Your task to perform on an android device: Show me productivity apps on the Play Store Image 0: 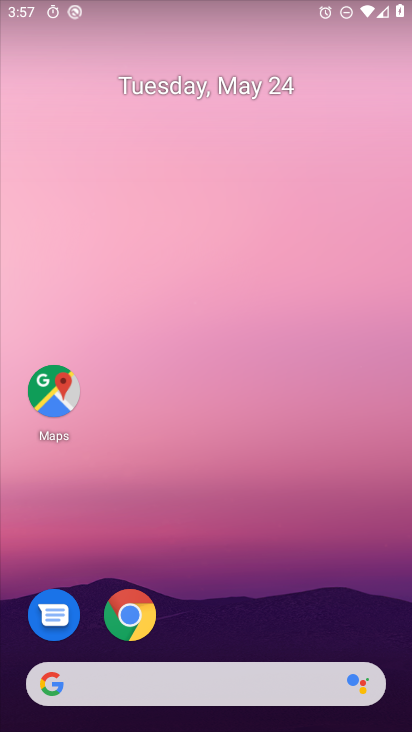
Step 0: drag from (189, 646) to (247, 105)
Your task to perform on an android device: Show me productivity apps on the Play Store Image 1: 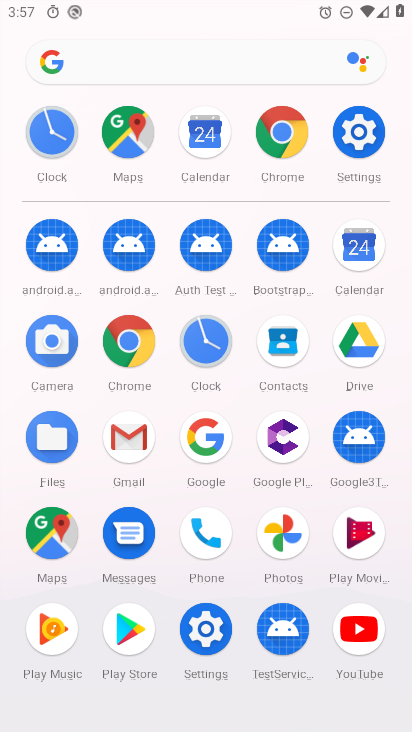
Step 1: click (133, 628)
Your task to perform on an android device: Show me productivity apps on the Play Store Image 2: 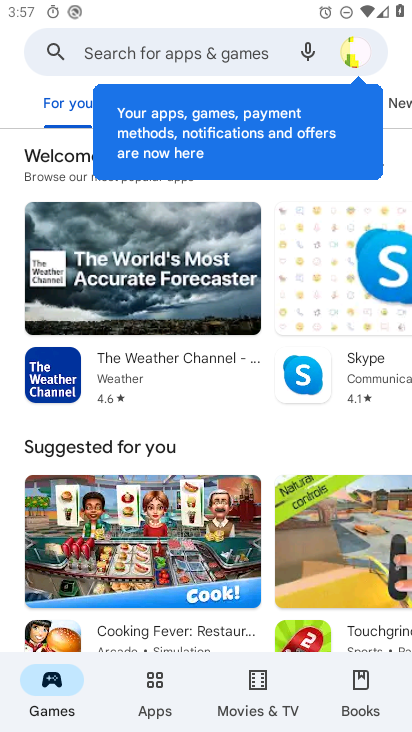
Step 2: click (157, 682)
Your task to perform on an android device: Show me productivity apps on the Play Store Image 3: 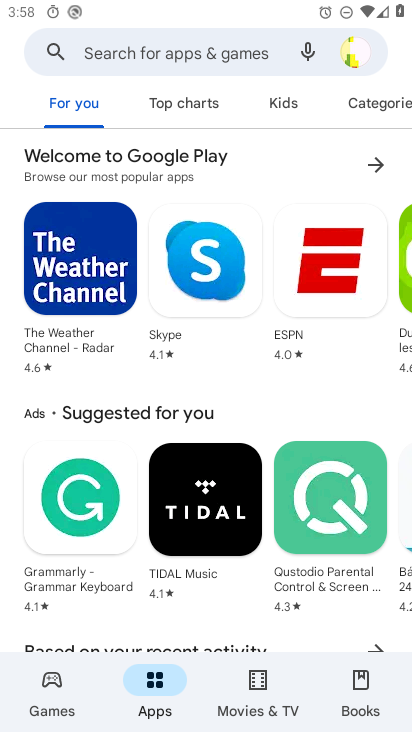
Step 3: task complete